Your task to perform on an android device: install app "Firefox Browser" Image 0: 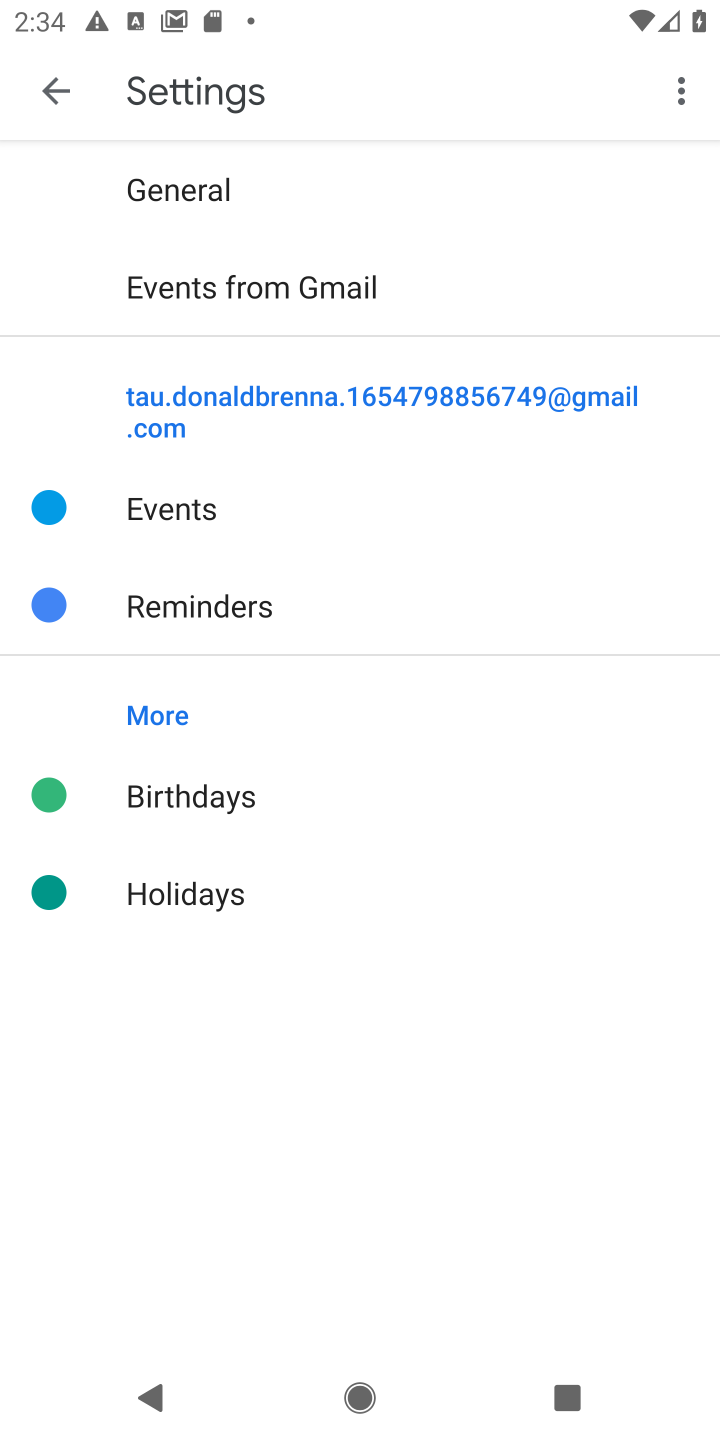
Step 0: press home button
Your task to perform on an android device: install app "Firefox Browser" Image 1: 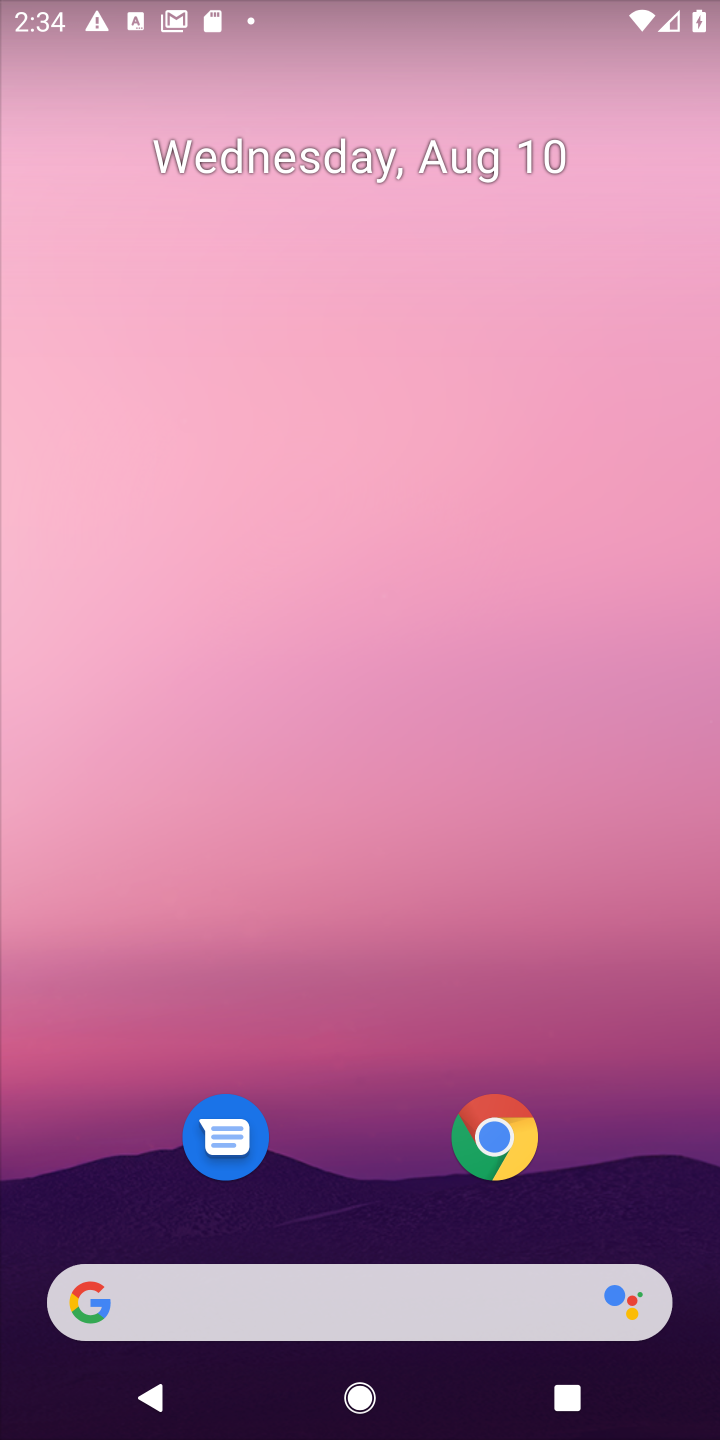
Step 1: drag from (347, 1237) to (379, 101)
Your task to perform on an android device: install app "Firefox Browser" Image 2: 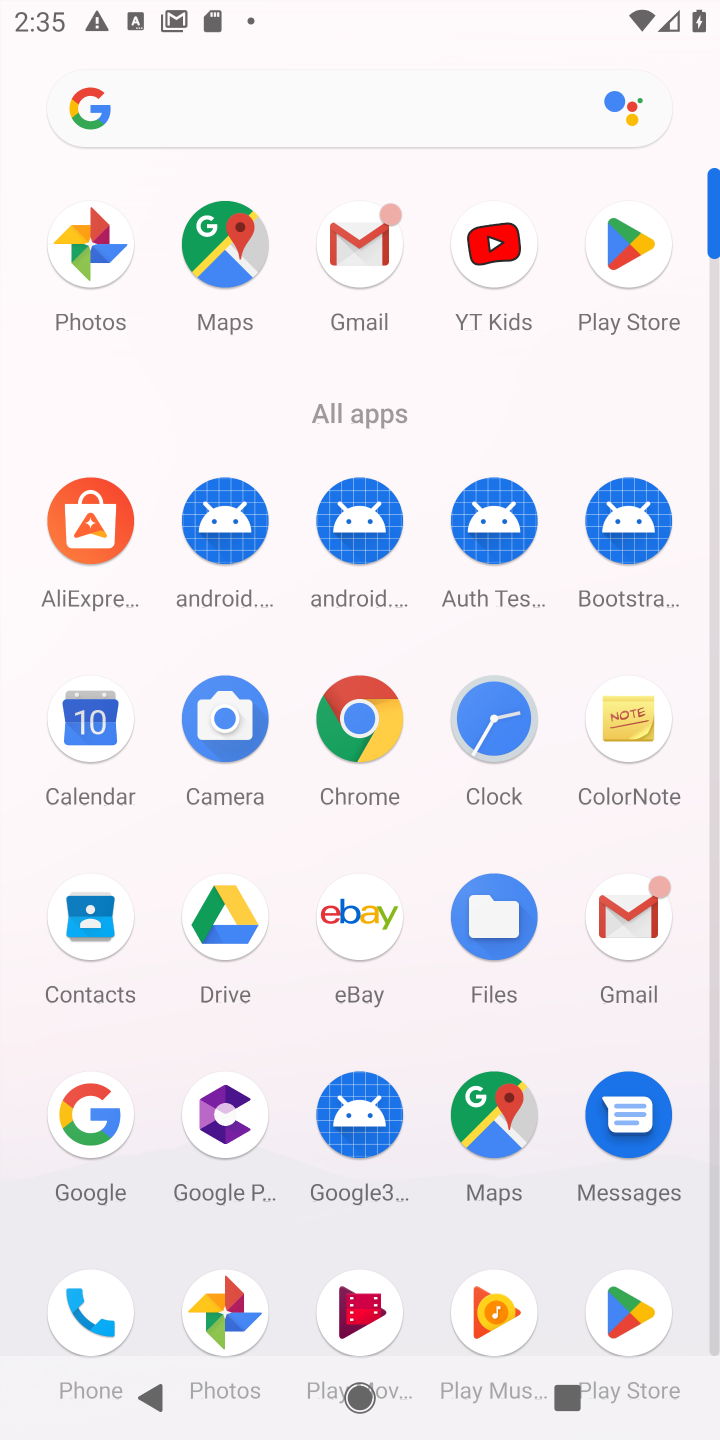
Step 2: click (635, 1303)
Your task to perform on an android device: install app "Firefox Browser" Image 3: 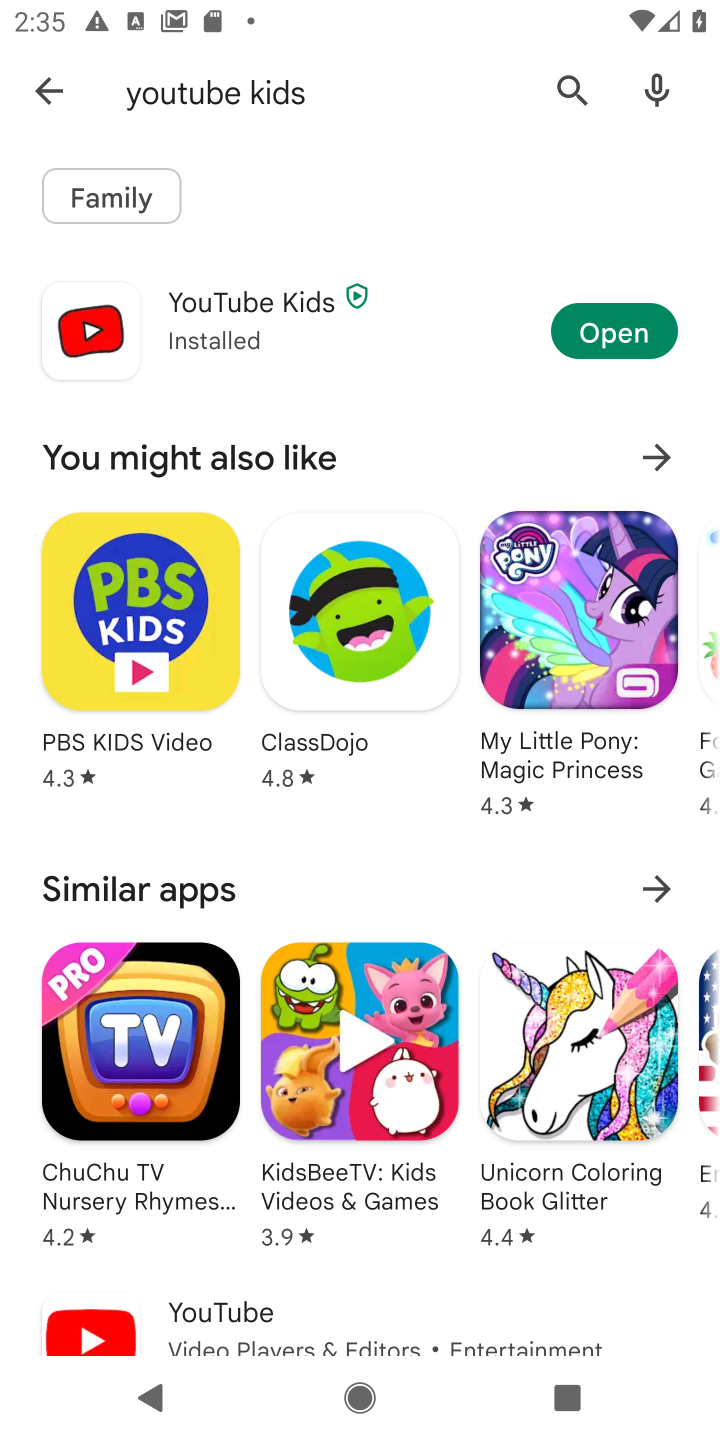
Step 3: click (253, 111)
Your task to perform on an android device: install app "Firefox Browser" Image 4: 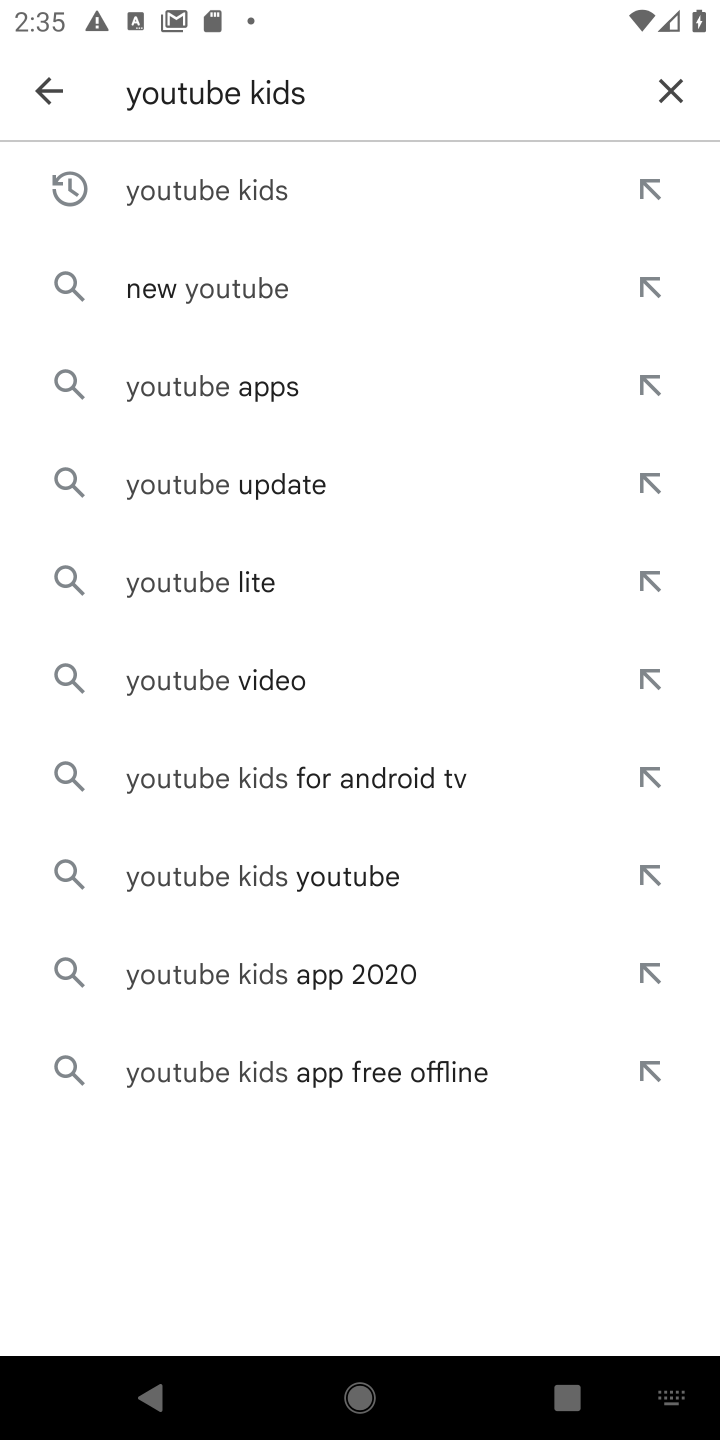
Step 4: click (676, 76)
Your task to perform on an android device: install app "Firefox Browser" Image 5: 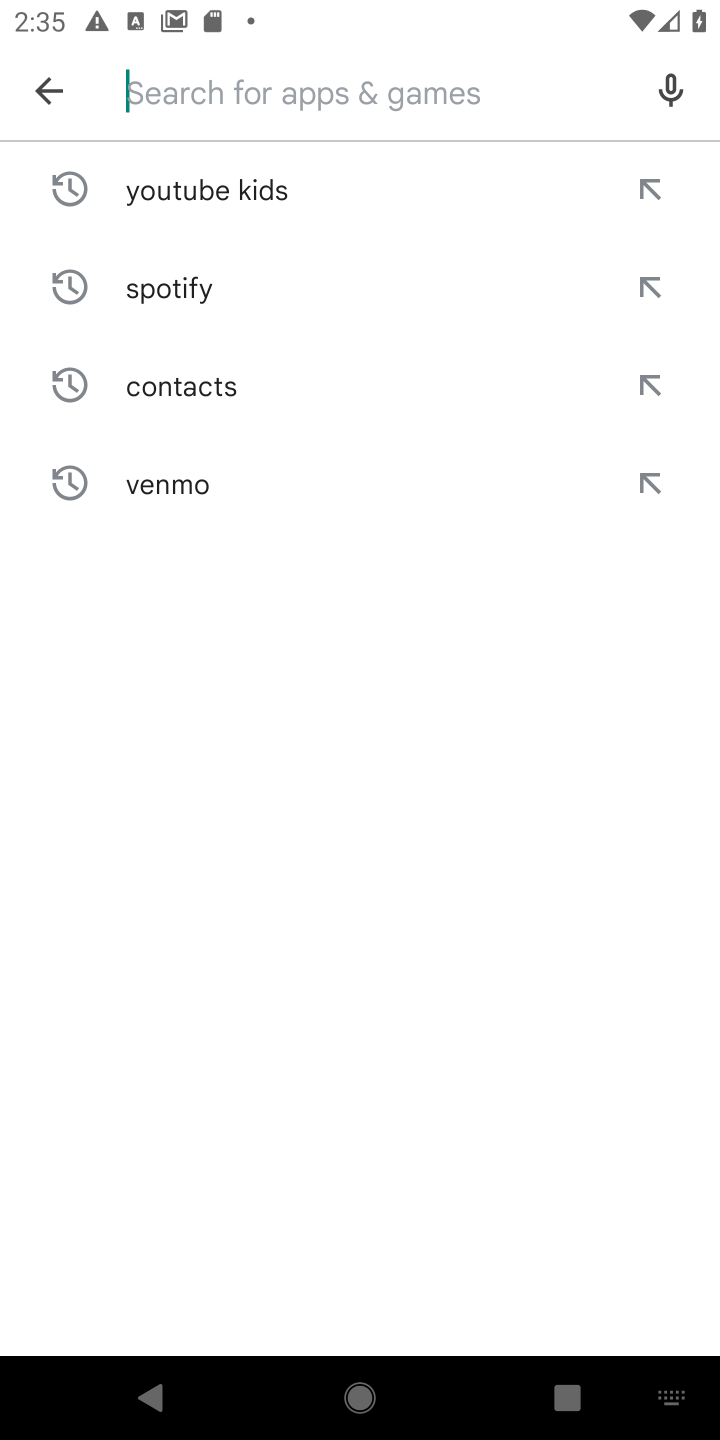
Step 5: type "firefox browser"
Your task to perform on an android device: install app "Firefox Browser" Image 6: 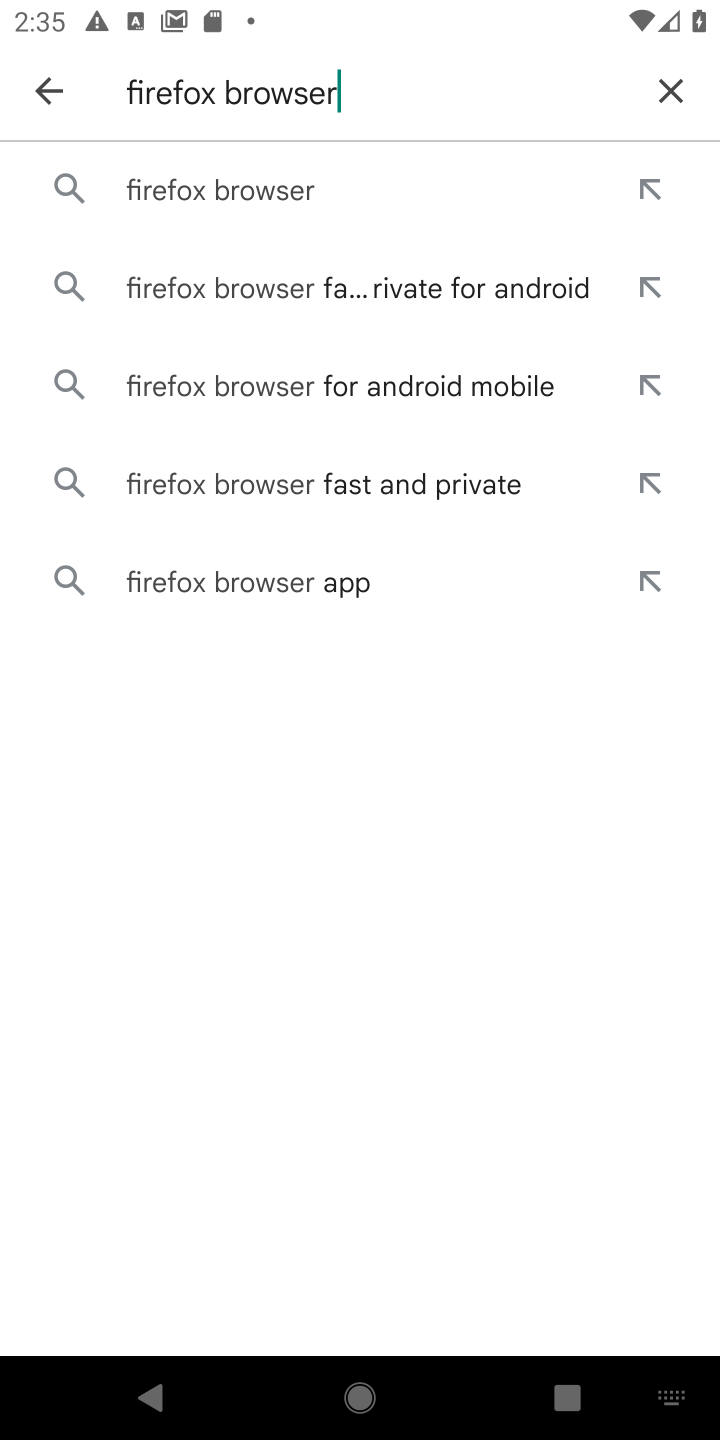
Step 6: click (293, 188)
Your task to perform on an android device: install app "Firefox Browser" Image 7: 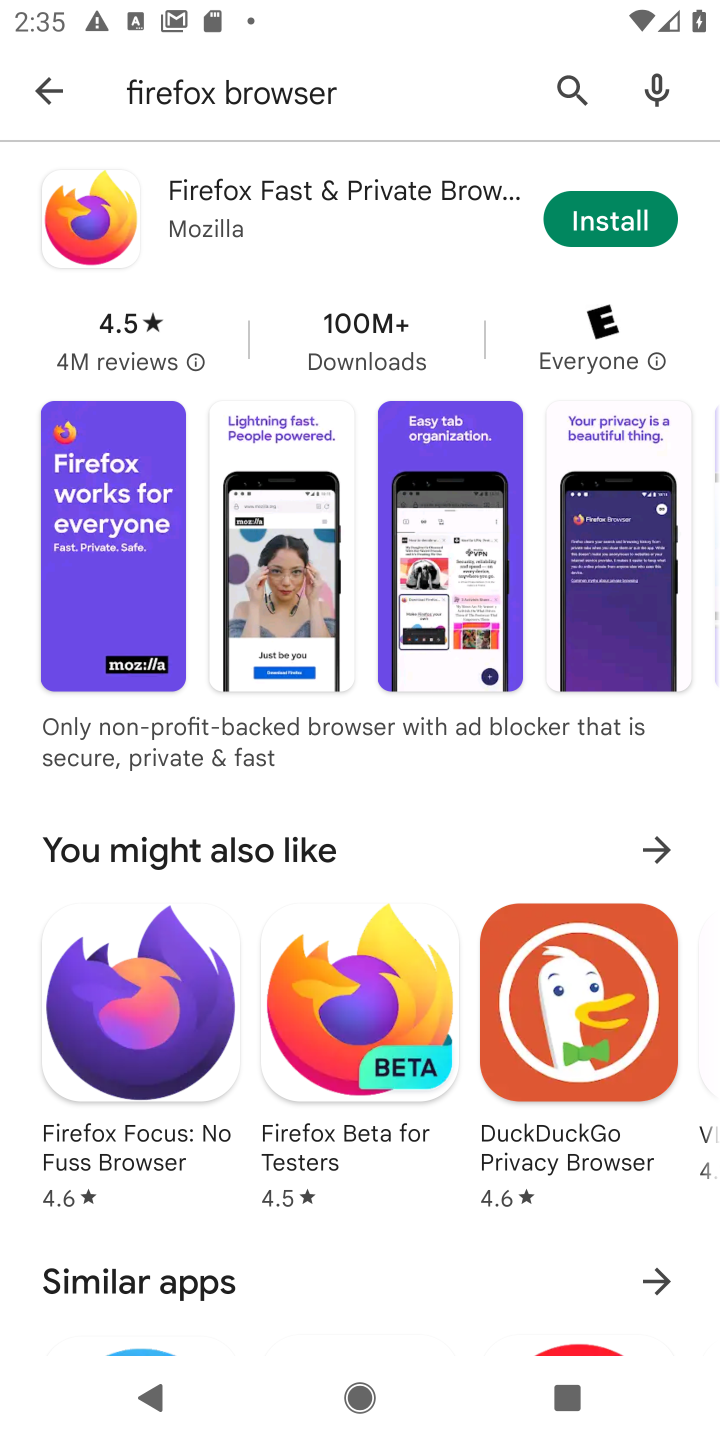
Step 7: click (635, 208)
Your task to perform on an android device: install app "Firefox Browser" Image 8: 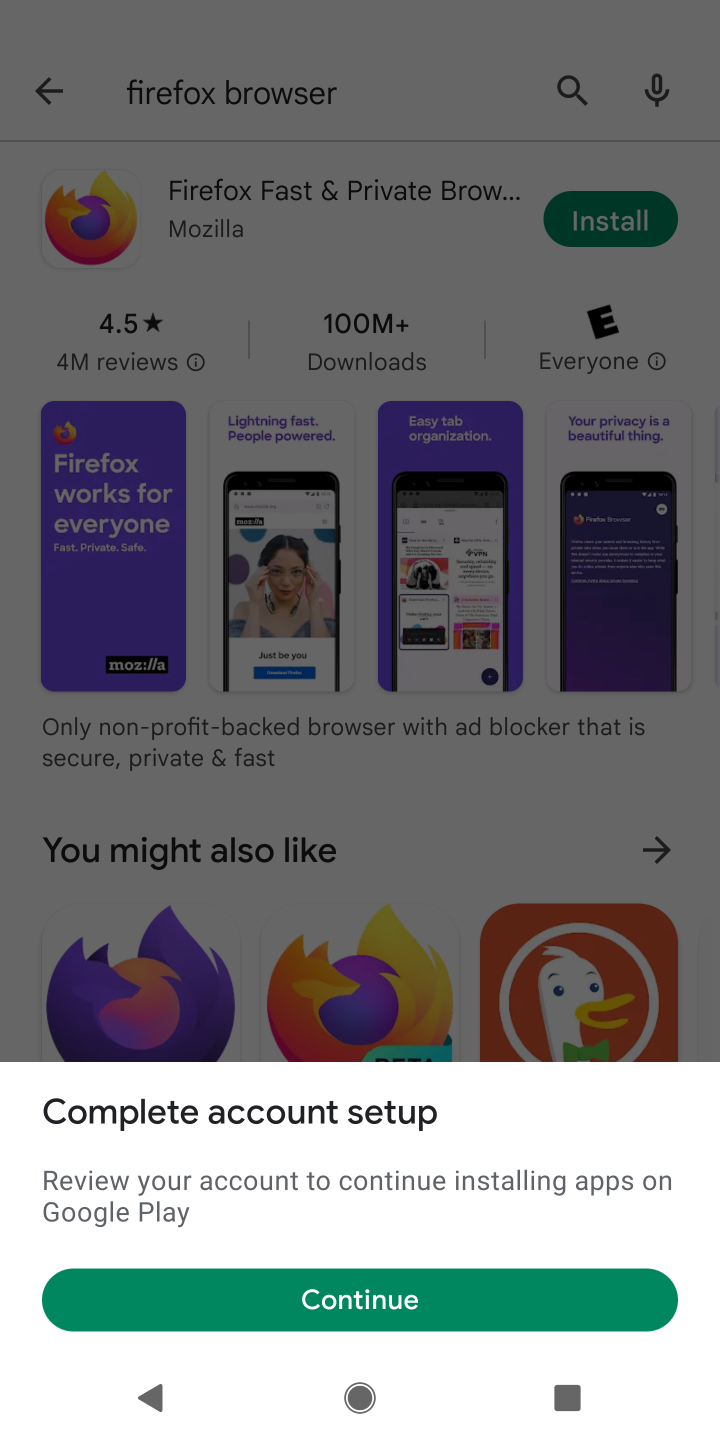
Step 8: click (344, 1309)
Your task to perform on an android device: install app "Firefox Browser" Image 9: 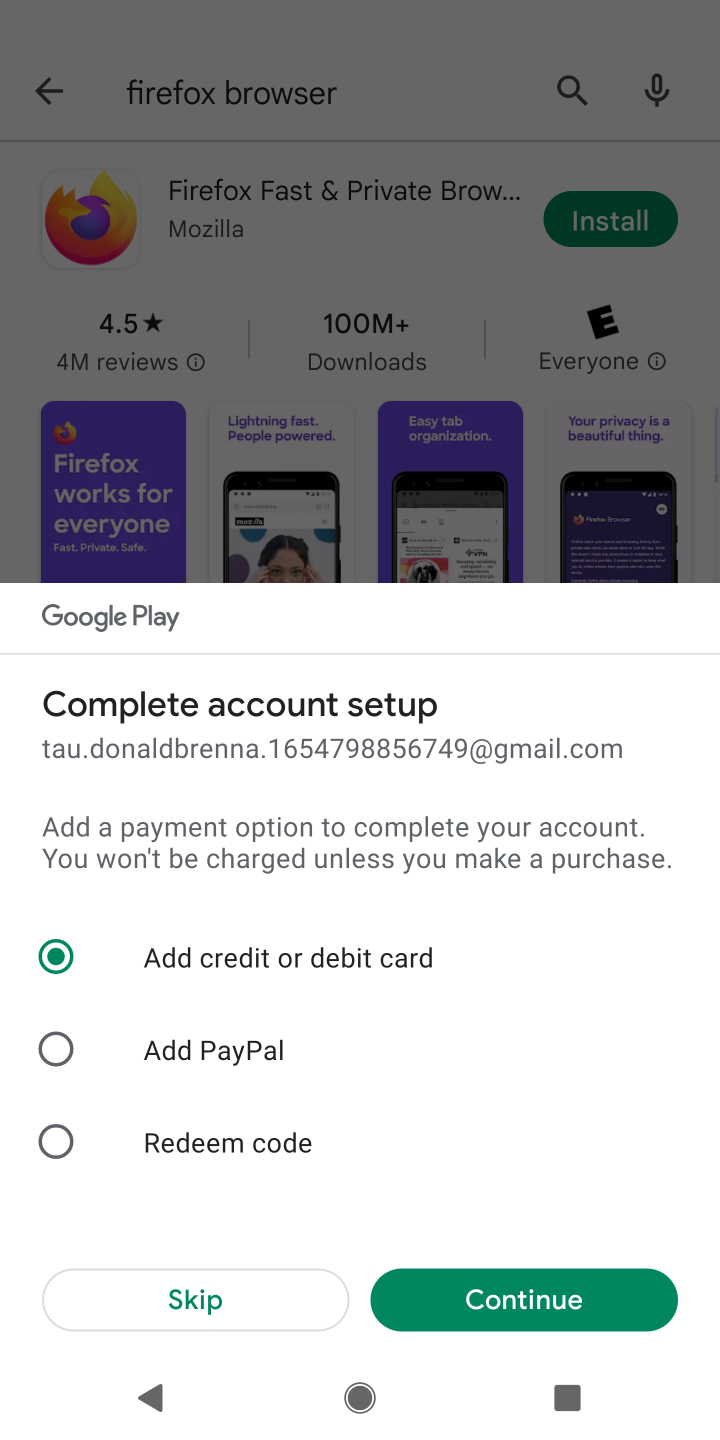
Step 9: click (269, 1305)
Your task to perform on an android device: install app "Firefox Browser" Image 10: 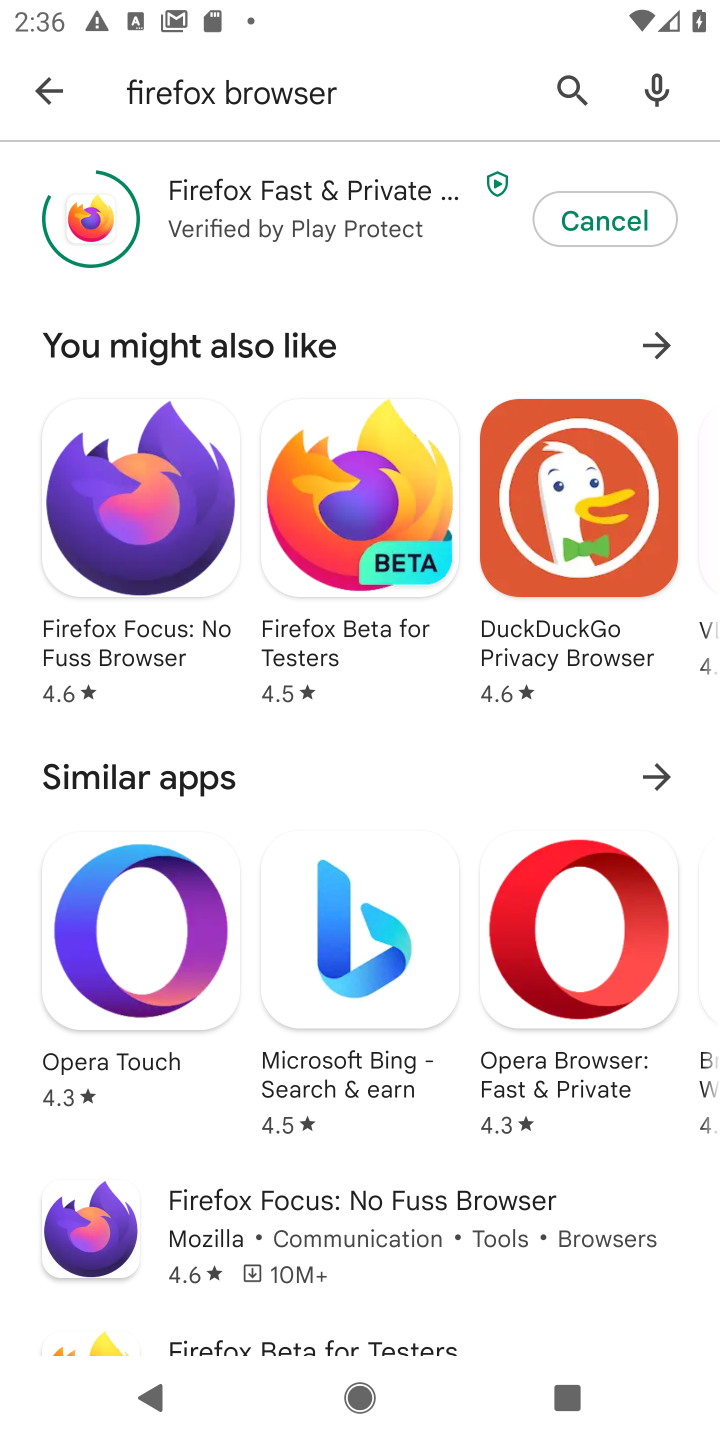
Step 10: click (606, 211)
Your task to perform on an android device: install app "Firefox Browser" Image 11: 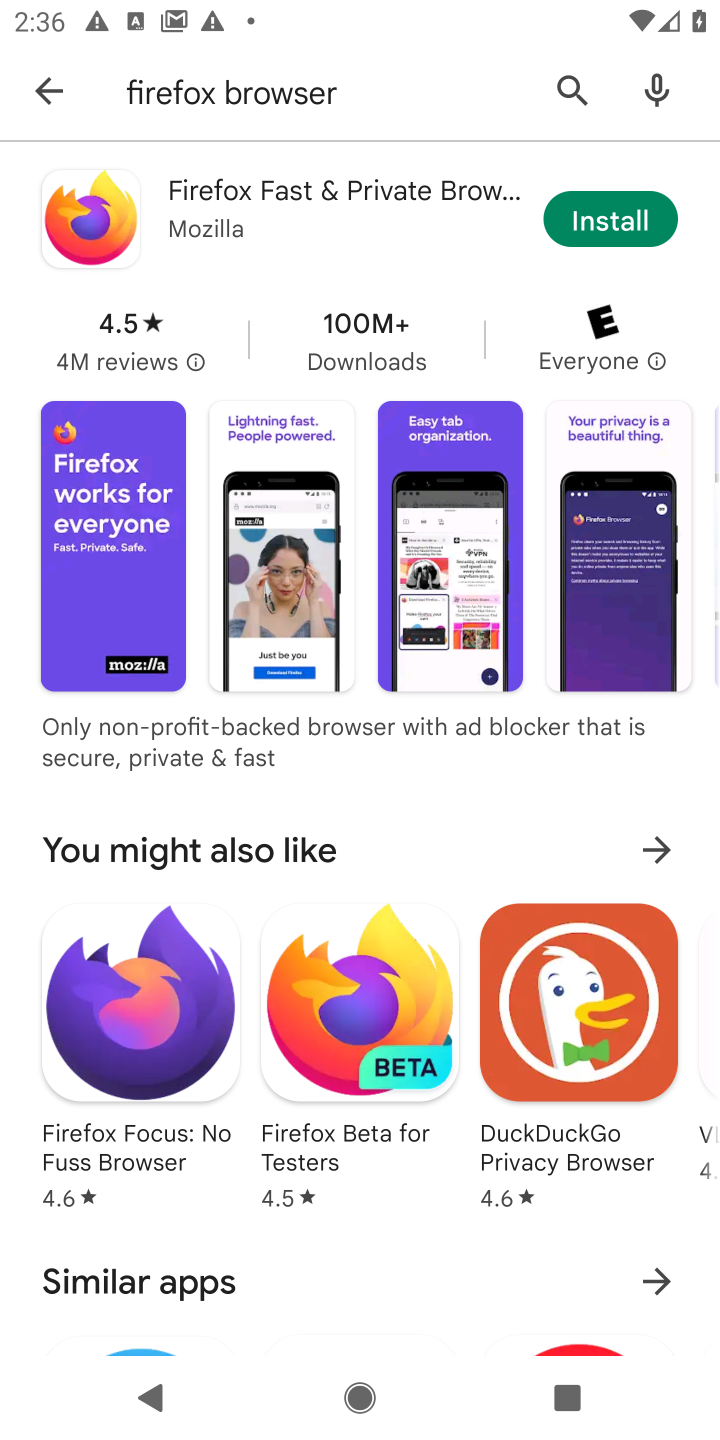
Step 11: click (639, 211)
Your task to perform on an android device: install app "Firefox Browser" Image 12: 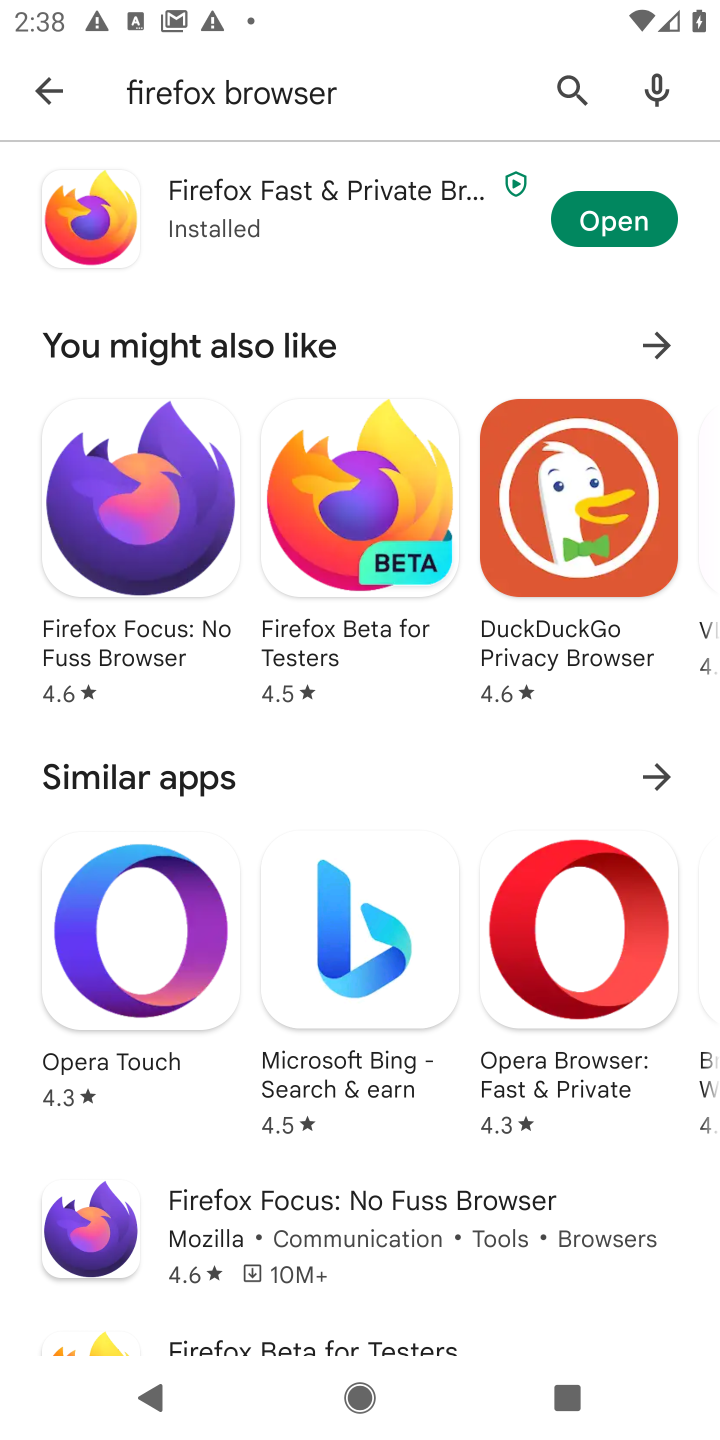
Step 12: task complete